Your task to perform on an android device: Go to Reddit.com Image 0: 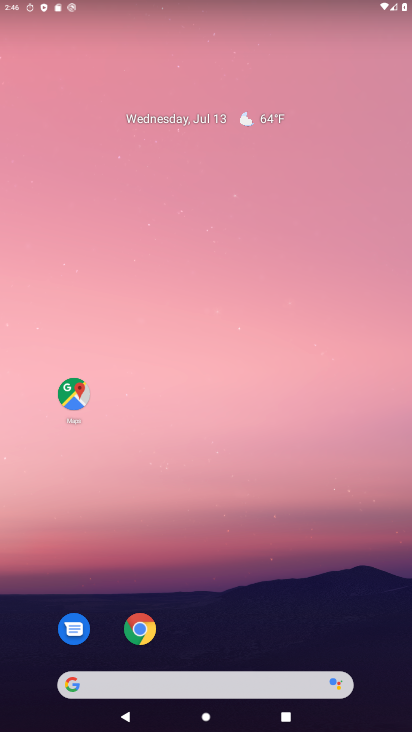
Step 0: drag from (289, 646) to (285, 118)
Your task to perform on an android device: Go to Reddit.com Image 1: 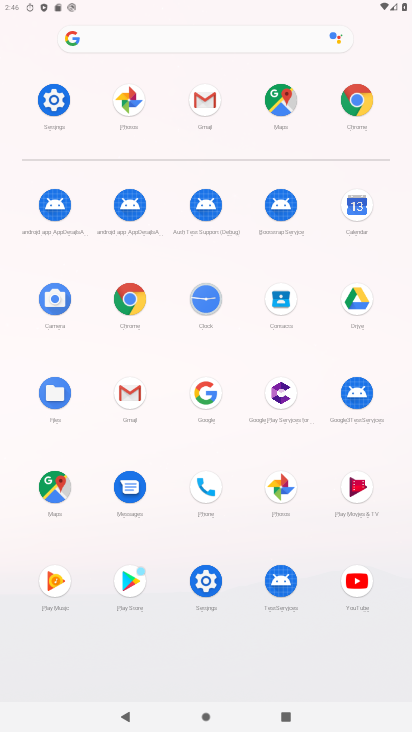
Step 1: click (138, 287)
Your task to perform on an android device: Go to Reddit.com Image 2: 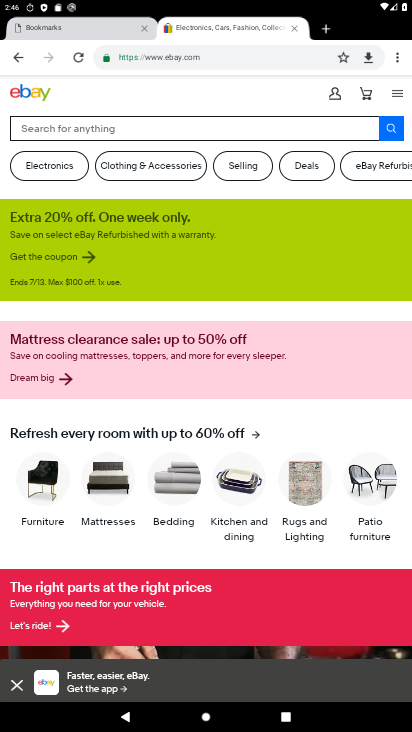
Step 2: drag from (399, 58) to (324, 58)
Your task to perform on an android device: Go to Reddit.com Image 3: 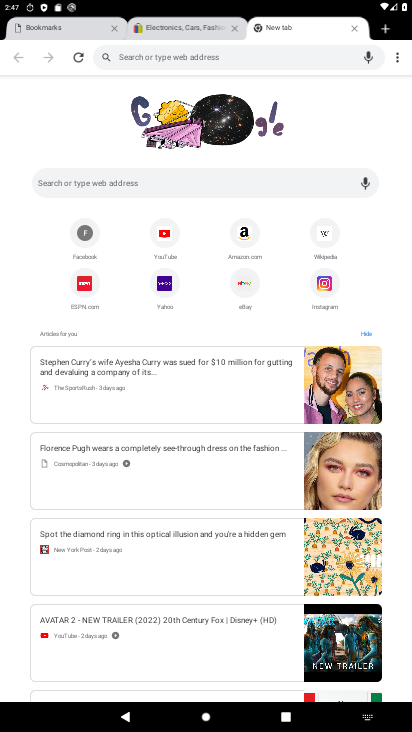
Step 3: click (194, 50)
Your task to perform on an android device: Go to Reddit.com Image 4: 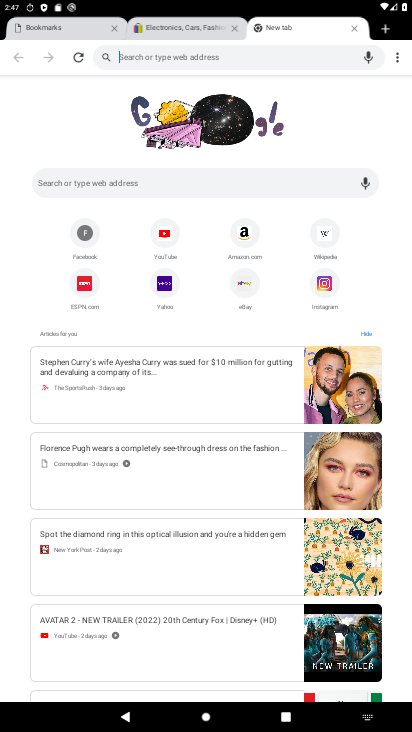
Step 4: click (205, 58)
Your task to perform on an android device: Go to Reddit.com Image 5: 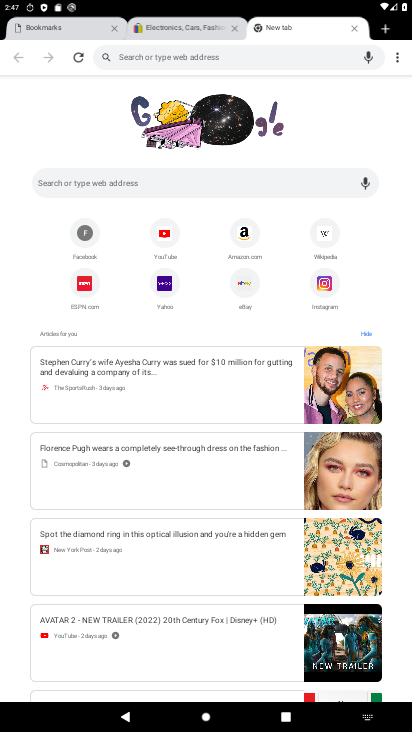
Step 5: type "reddit.com"
Your task to perform on an android device: Go to Reddit.com Image 6: 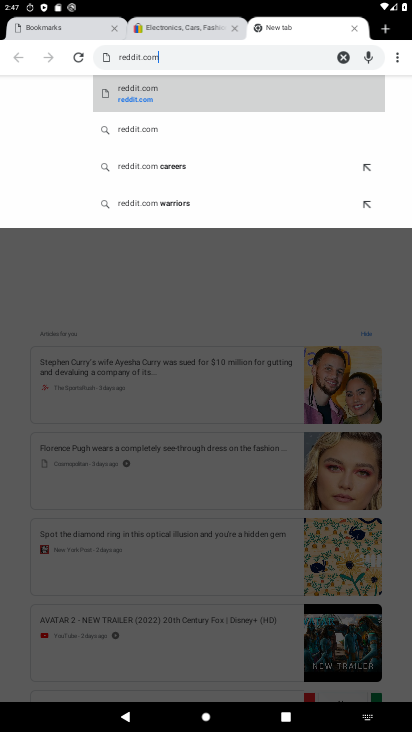
Step 6: click (123, 95)
Your task to perform on an android device: Go to Reddit.com Image 7: 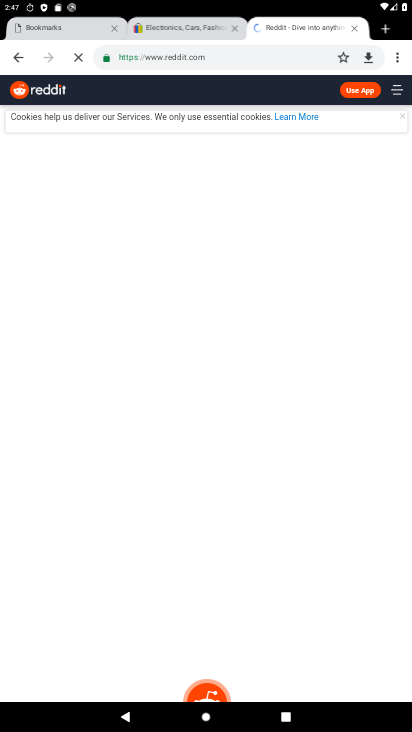
Step 7: task complete